Your task to perform on an android device: toggle pop-ups in chrome Image 0: 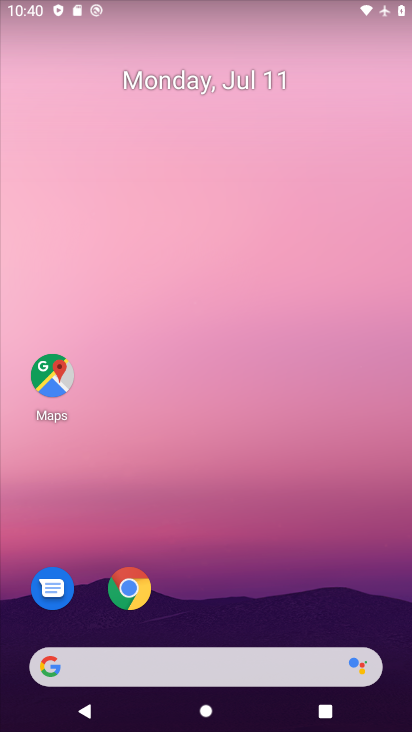
Step 0: click (130, 592)
Your task to perform on an android device: toggle pop-ups in chrome Image 1: 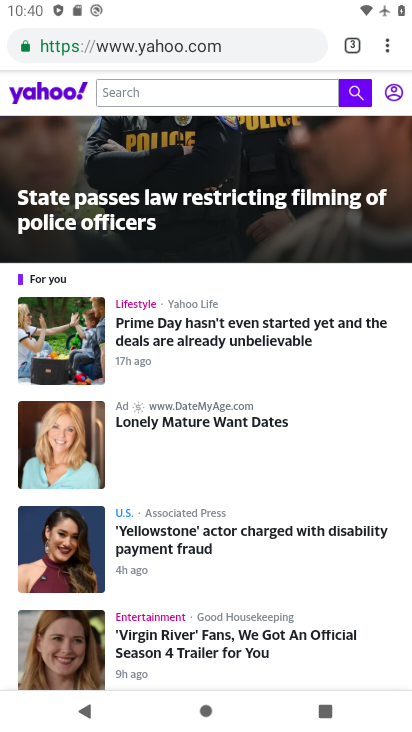
Step 1: drag from (384, 41) to (253, 556)
Your task to perform on an android device: toggle pop-ups in chrome Image 2: 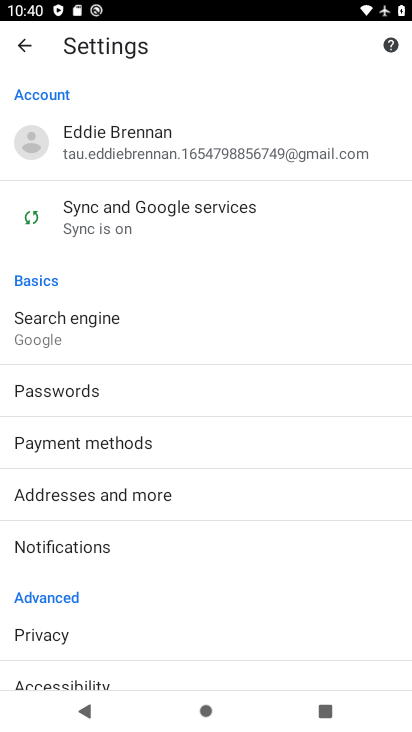
Step 2: drag from (124, 622) to (262, 111)
Your task to perform on an android device: toggle pop-ups in chrome Image 3: 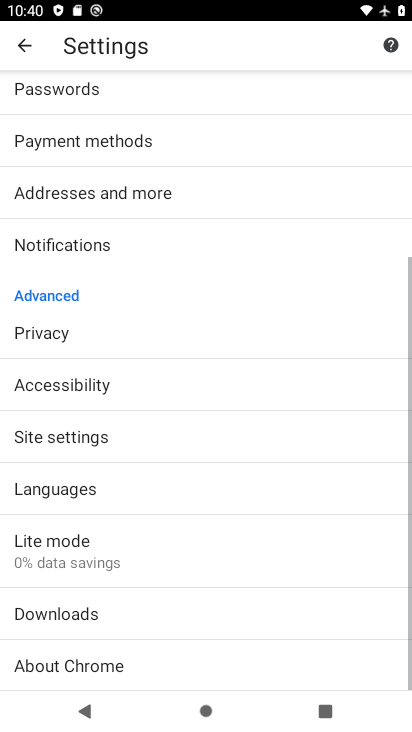
Step 3: click (115, 436)
Your task to perform on an android device: toggle pop-ups in chrome Image 4: 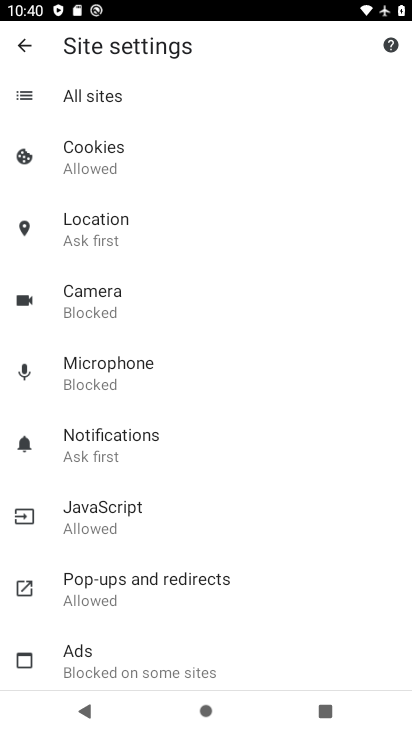
Step 4: click (110, 586)
Your task to perform on an android device: toggle pop-ups in chrome Image 5: 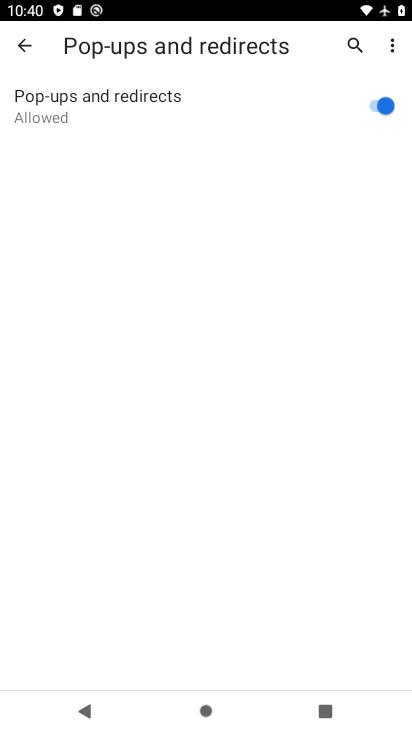
Step 5: click (382, 108)
Your task to perform on an android device: toggle pop-ups in chrome Image 6: 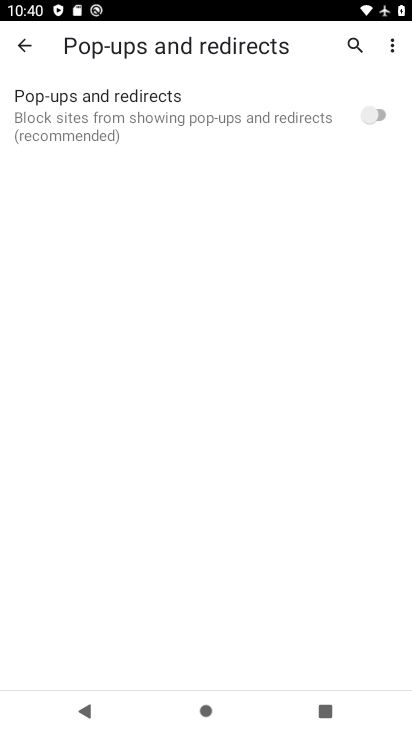
Step 6: task complete